Your task to perform on an android device: Go to Google Image 0: 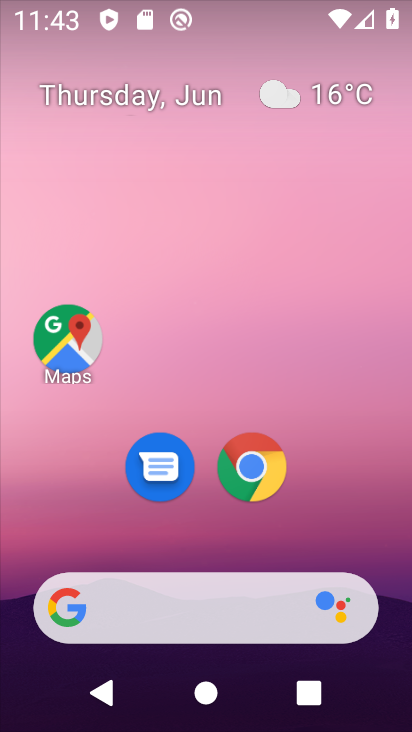
Step 0: click (251, 466)
Your task to perform on an android device: Go to Google Image 1: 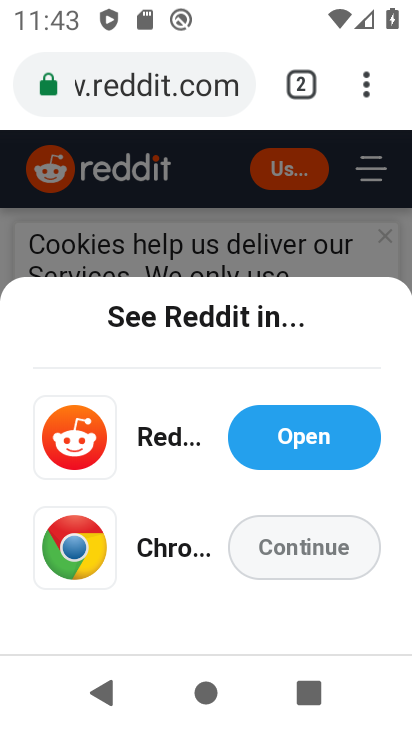
Step 1: task complete